Your task to perform on an android device: change the clock display to show seconds Image 0: 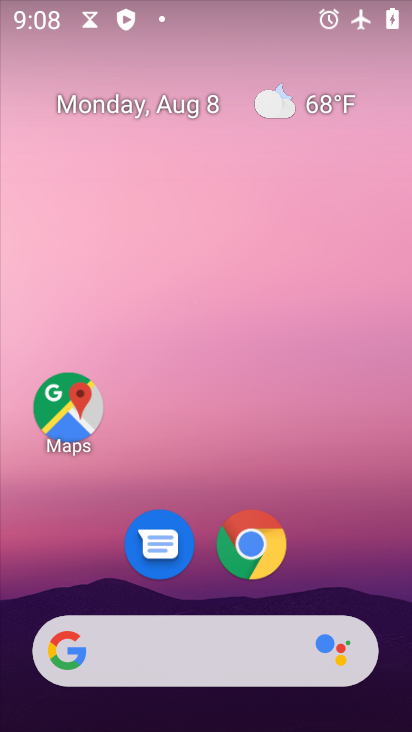
Step 0: press home button
Your task to perform on an android device: change the clock display to show seconds Image 1: 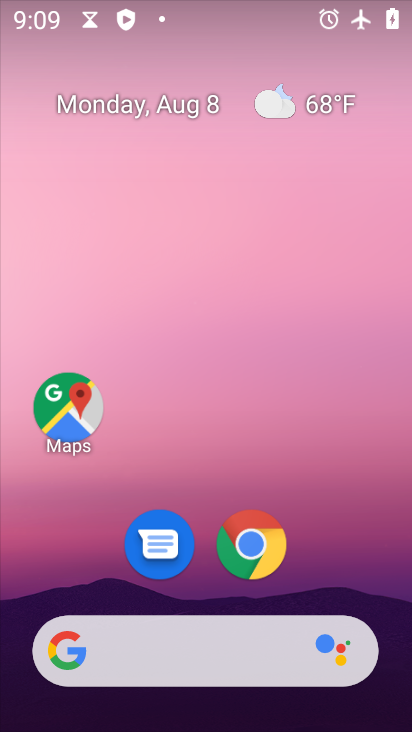
Step 1: drag from (314, 581) to (338, 6)
Your task to perform on an android device: change the clock display to show seconds Image 2: 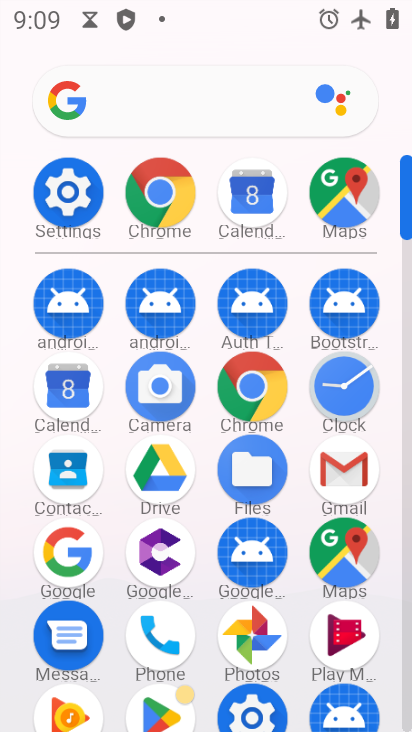
Step 2: click (341, 376)
Your task to perform on an android device: change the clock display to show seconds Image 3: 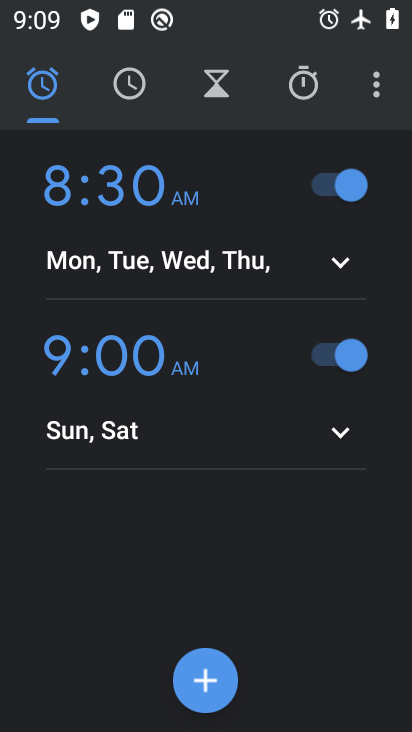
Step 3: click (373, 90)
Your task to perform on an android device: change the clock display to show seconds Image 4: 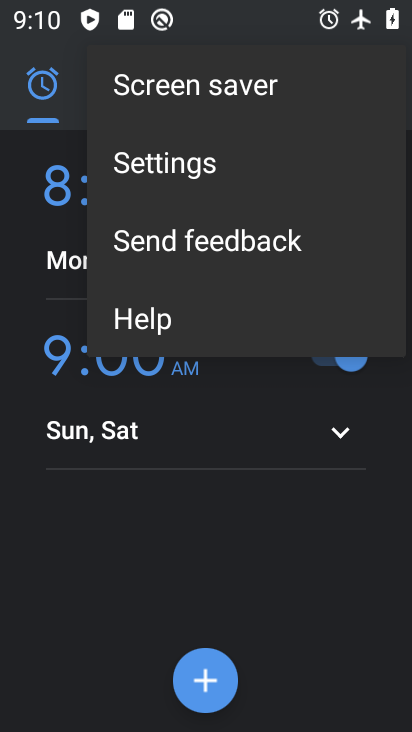
Step 4: click (210, 164)
Your task to perform on an android device: change the clock display to show seconds Image 5: 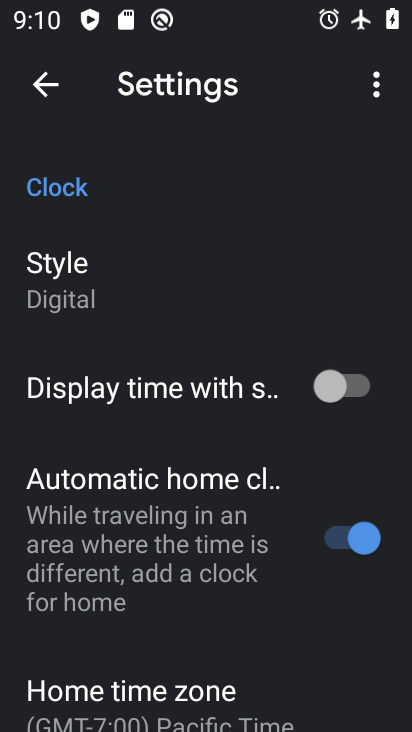
Step 5: click (351, 367)
Your task to perform on an android device: change the clock display to show seconds Image 6: 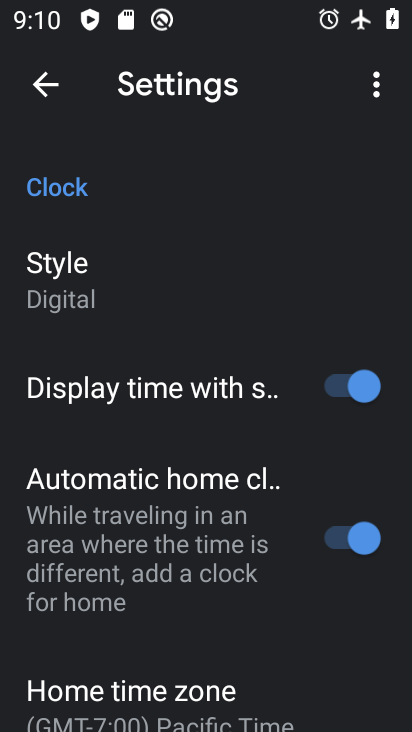
Step 6: task complete